Your task to perform on an android device: What are the best selling refrigerators at Home Depot? Image 0: 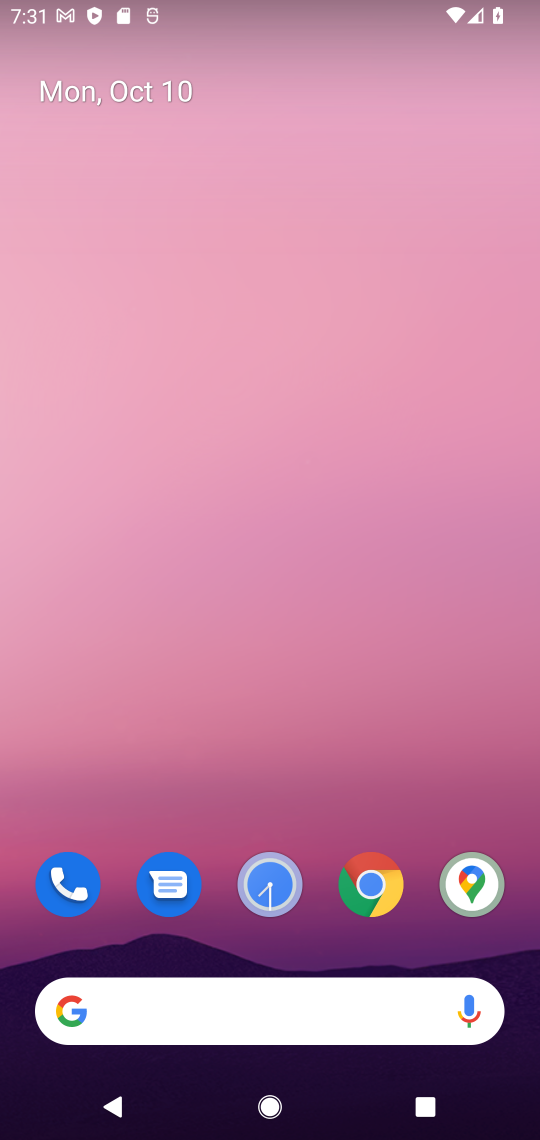
Step 0: click (375, 880)
Your task to perform on an android device: What are the best selling refrigerators at Home Depot? Image 1: 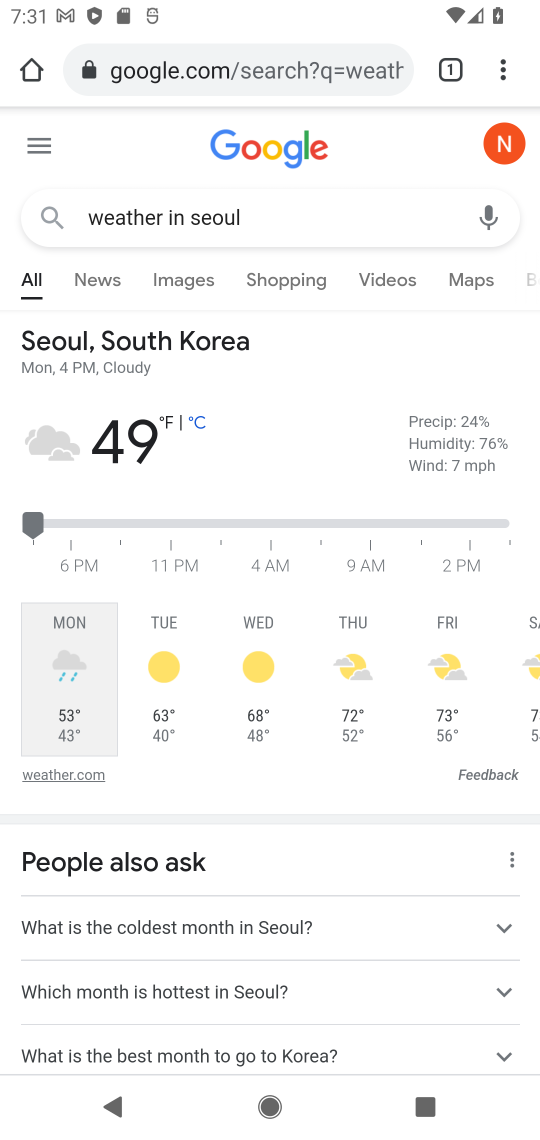
Step 1: drag from (326, 1113) to (502, 570)
Your task to perform on an android device: What are the best selling refrigerators at Home Depot? Image 2: 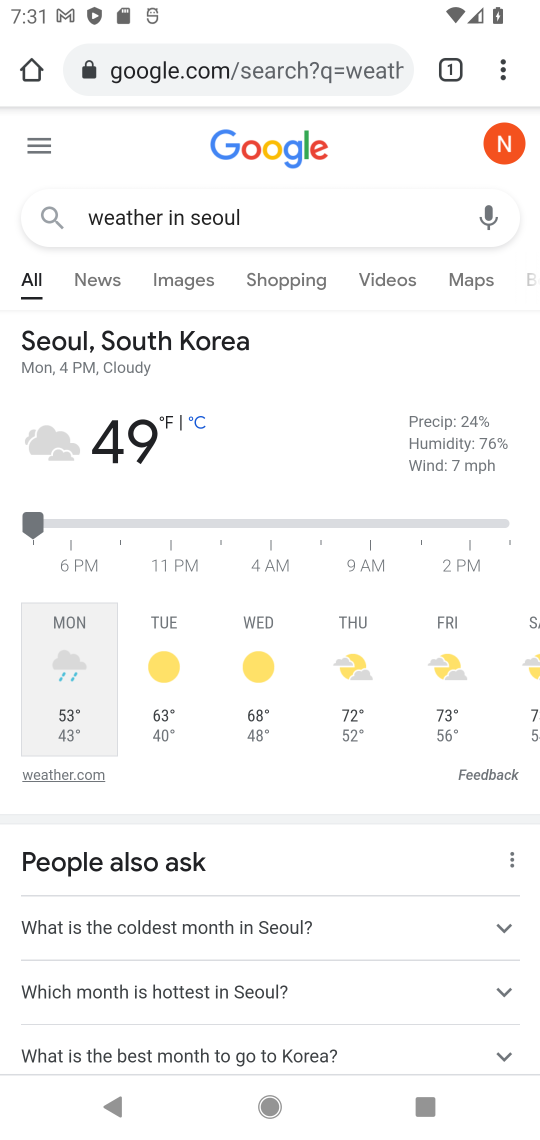
Step 2: click (327, 72)
Your task to perform on an android device: What are the best selling refrigerators at Home Depot? Image 3: 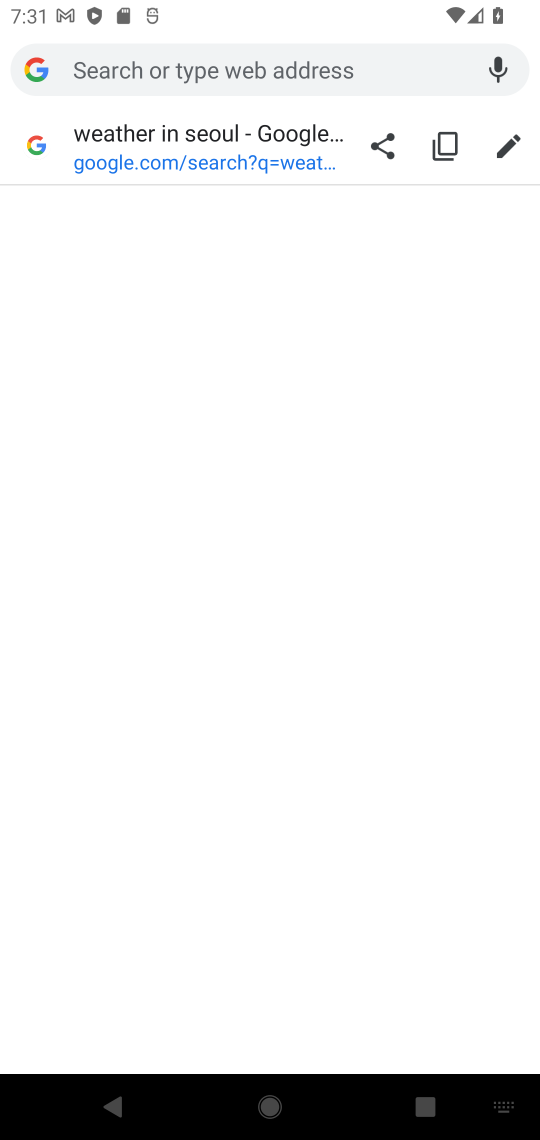
Step 3: type "best selling refrigerators at Home Depot?"
Your task to perform on an android device: What are the best selling refrigerators at Home Depot? Image 4: 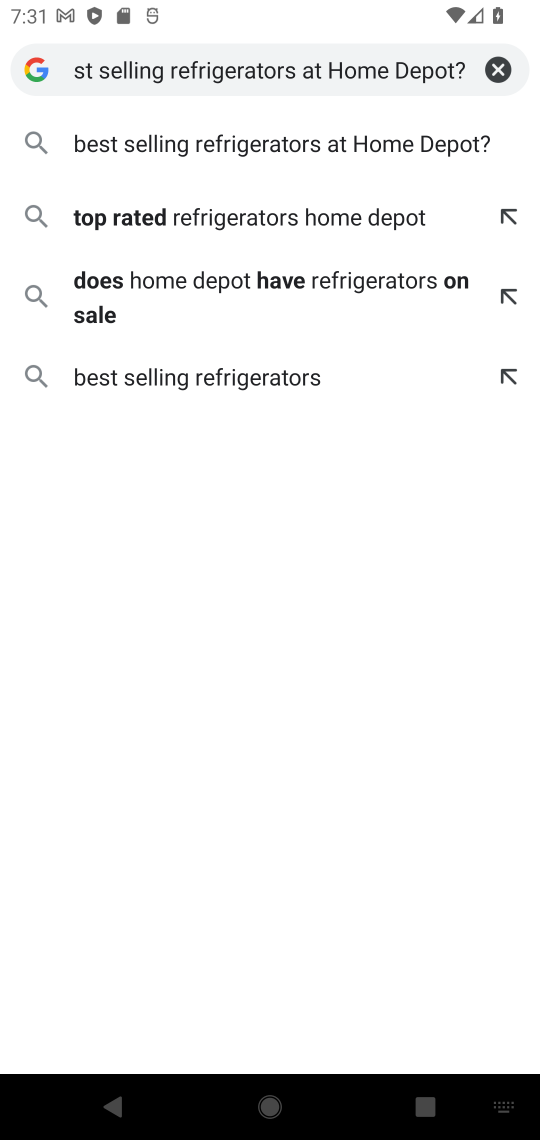
Step 4: click (426, 146)
Your task to perform on an android device: What are the best selling refrigerators at Home Depot? Image 5: 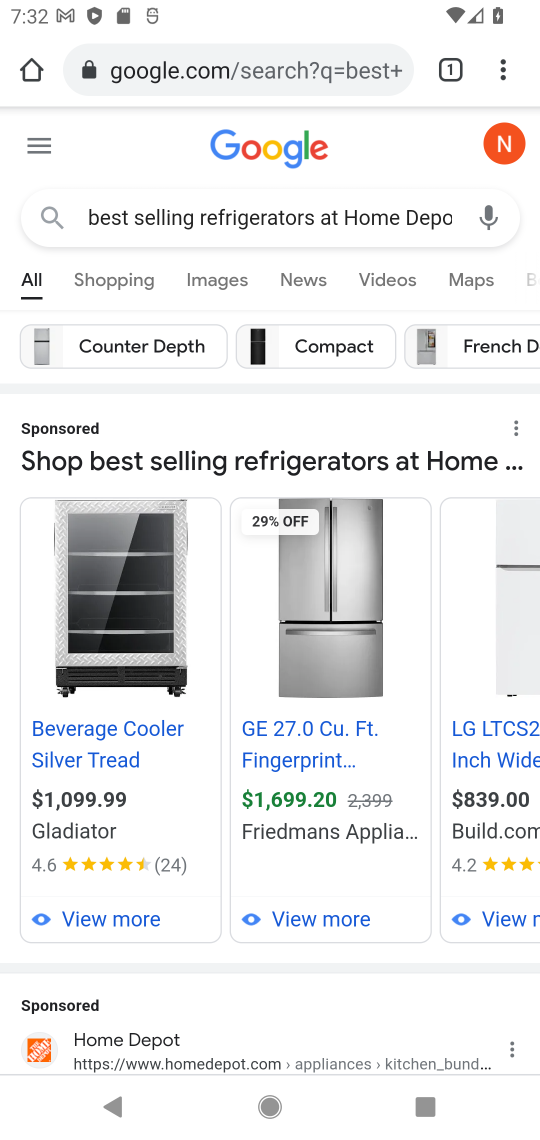
Step 5: drag from (415, 996) to (325, 713)
Your task to perform on an android device: What are the best selling refrigerators at Home Depot? Image 6: 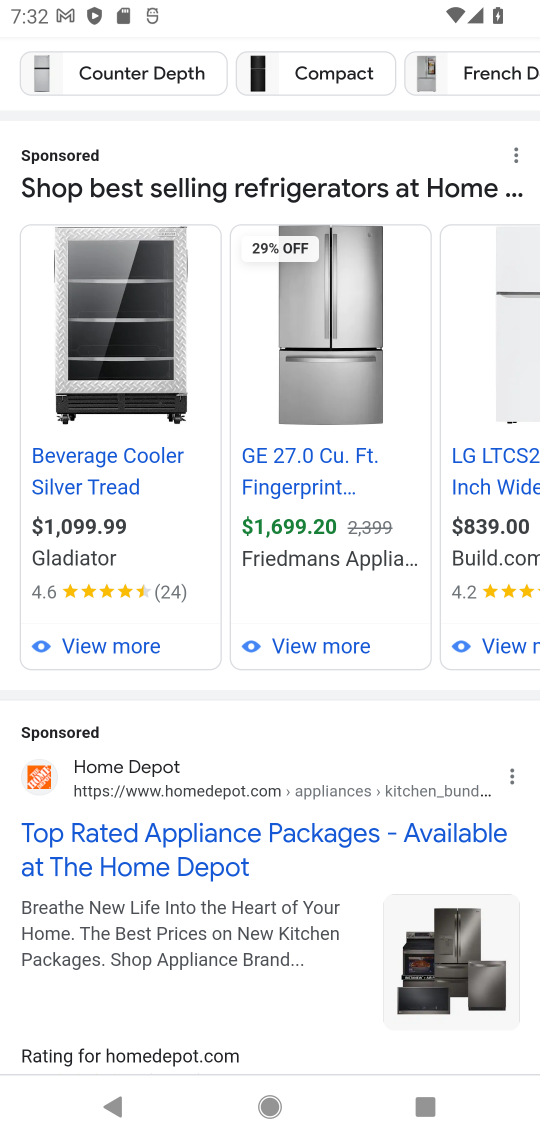
Step 6: drag from (317, 715) to (259, 412)
Your task to perform on an android device: What are the best selling refrigerators at Home Depot? Image 7: 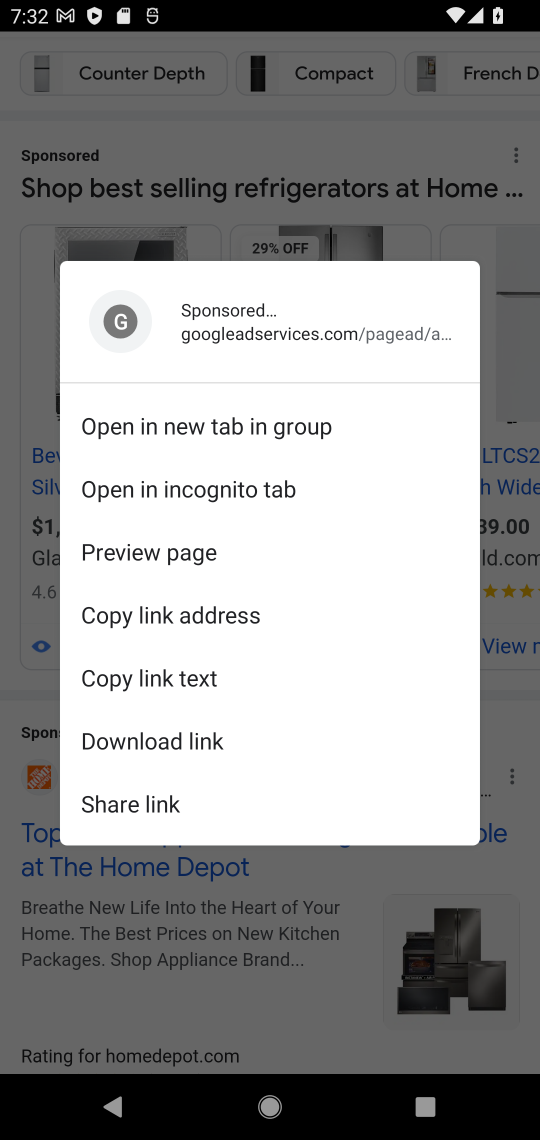
Step 7: click (515, 685)
Your task to perform on an android device: What are the best selling refrigerators at Home Depot? Image 8: 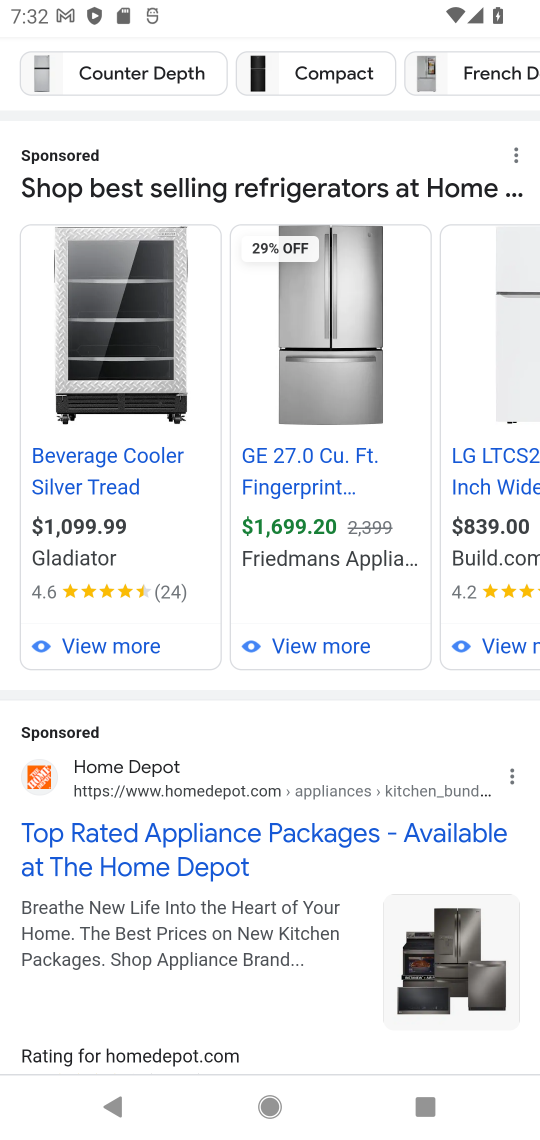
Step 8: task complete